Your task to perform on an android device: turn smart compose on in the gmail app Image 0: 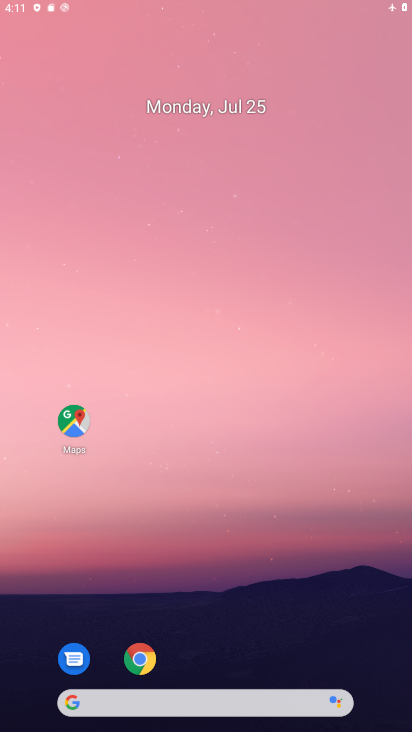
Step 0: click (249, 4)
Your task to perform on an android device: turn smart compose on in the gmail app Image 1: 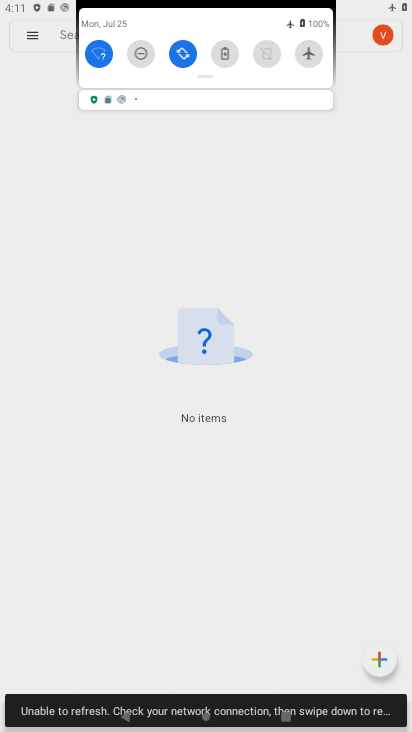
Step 1: press back button
Your task to perform on an android device: turn smart compose on in the gmail app Image 2: 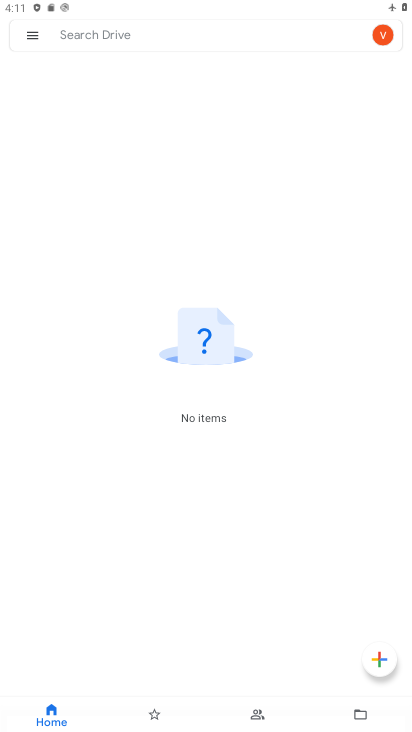
Step 2: press back button
Your task to perform on an android device: turn smart compose on in the gmail app Image 3: 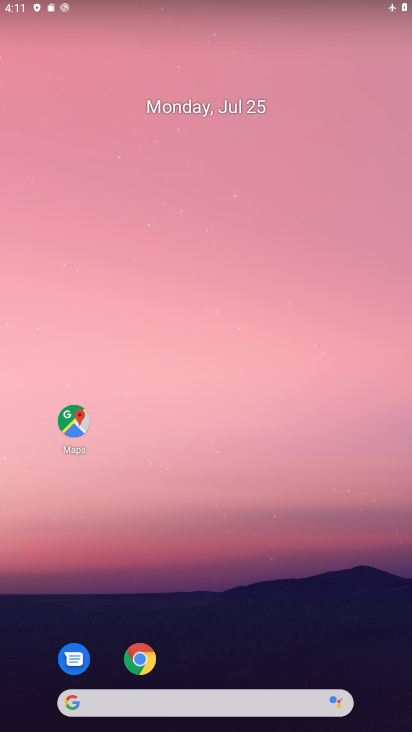
Step 3: press back button
Your task to perform on an android device: turn smart compose on in the gmail app Image 4: 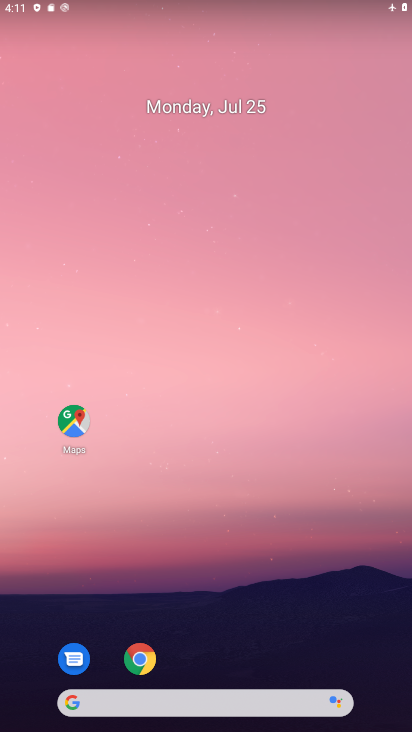
Step 4: press home button
Your task to perform on an android device: turn smart compose on in the gmail app Image 5: 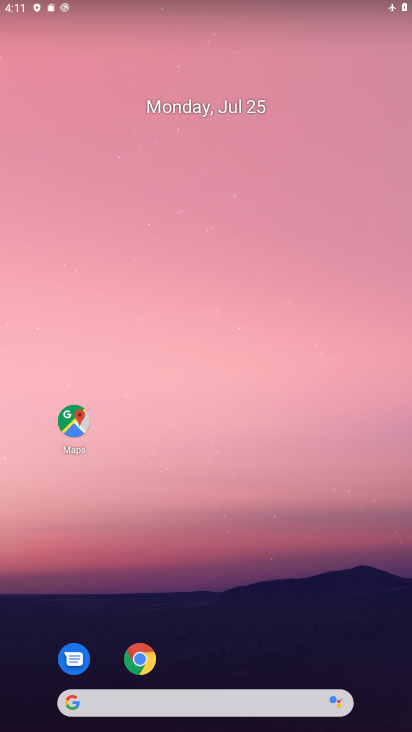
Step 5: drag from (228, 532) to (205, 122)
Your task to perform on an android device: turn smart compose on in the gmail app Image 6: 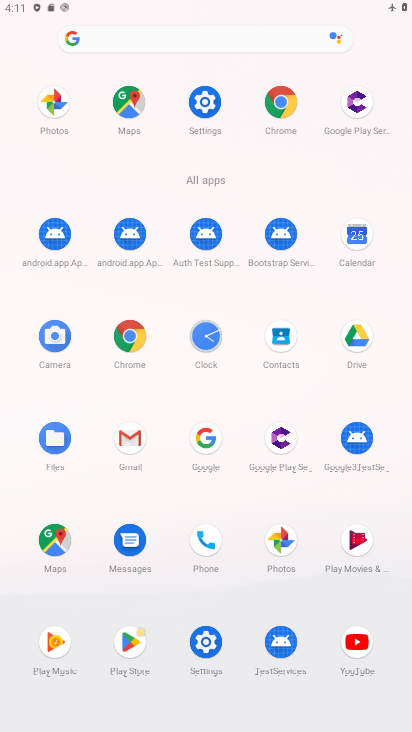
Step 6: click (139, 429)
Your task to perform on an android device: turn smart compose on in the gmail app Image 7: 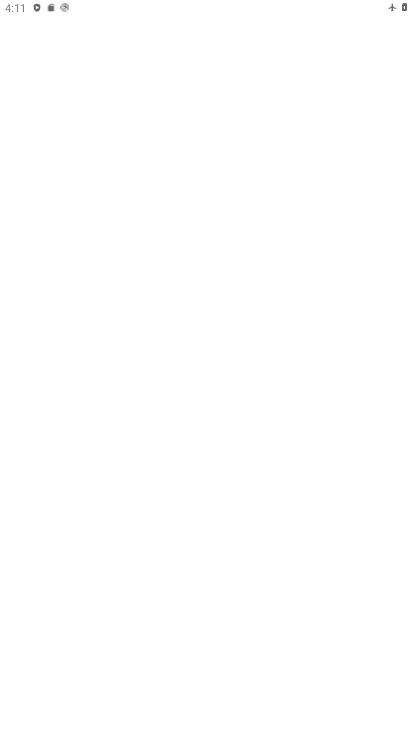
Step 7: click (150, 444)
Your task to perform on an android device: turn smart compose on in the gmail app Image 8: 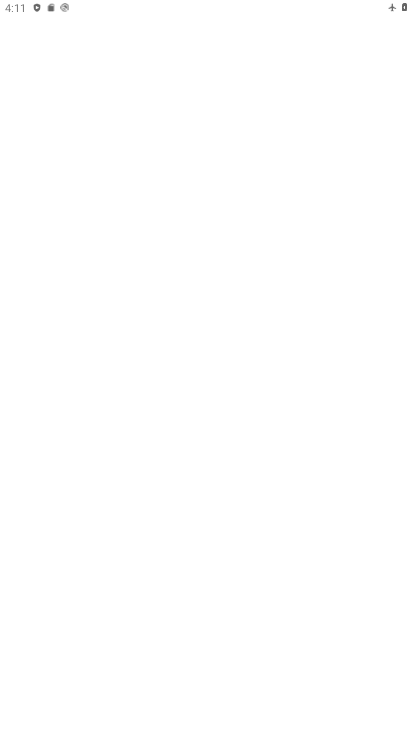
Step 8: click (150, 441)
Your task to perform on an android device: turn smart compose on in the gmail app Image 9: 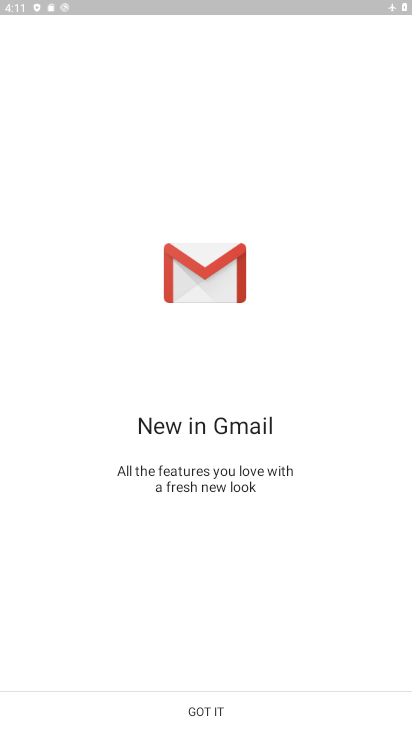
Step 9: click (211, 680)
Your task to perform on an android device: turn smart compose on in the gmail app Image 10: 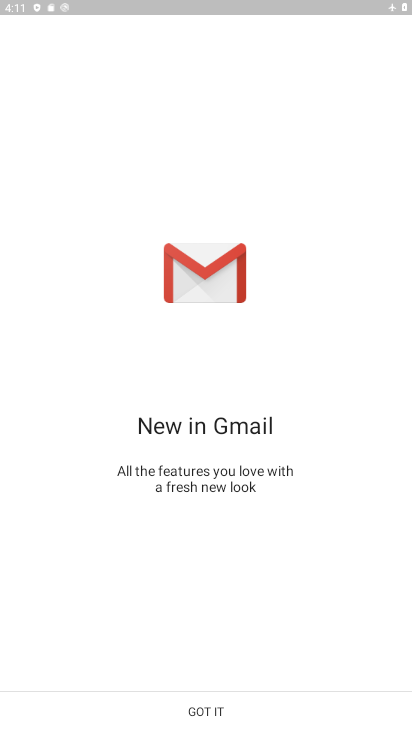
Step 10: click (220, 707)
Your task to perform on an android device: turn smart compose on in the gmail app Image 11: 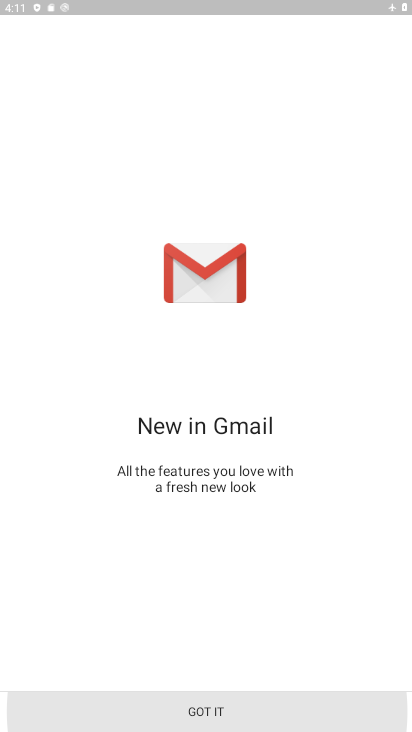
Step 11: click (225, 706)
Your task to perform on an android device: turn smart compose on in the gmail app Image 12: 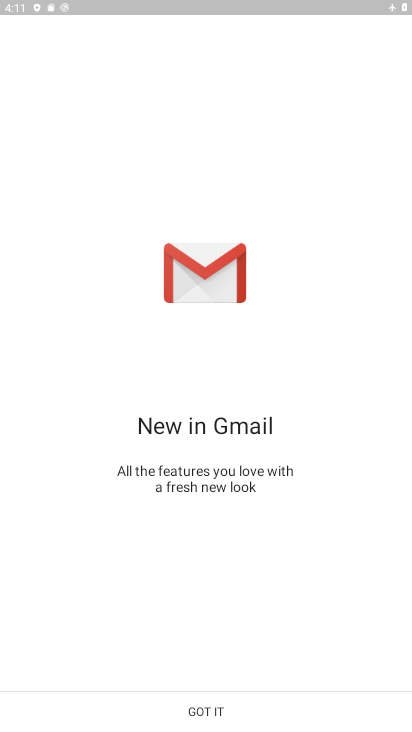
Step 12: click (226, 706)
Your task to perform on an android device: turn smart compose on in the gmail app Image 13: 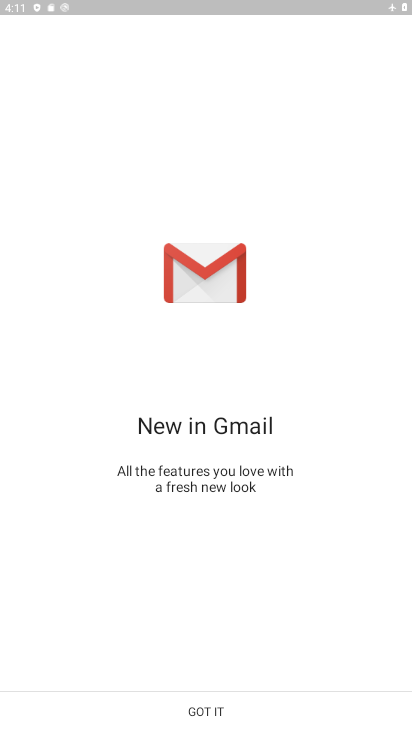
Step 13: click (226, 706)
Your task to perform on an android device: turn smart compose on in the gmail app Image 14: 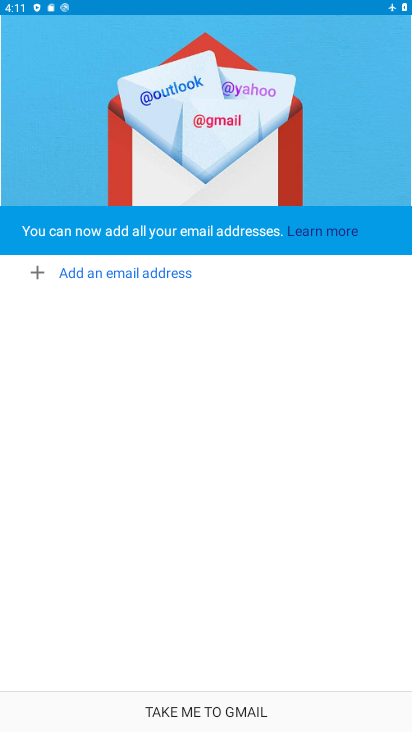
Step 14: click (243, 701)
Your task to perform on an android device: turn smart compose on in the gmail app Image 15: 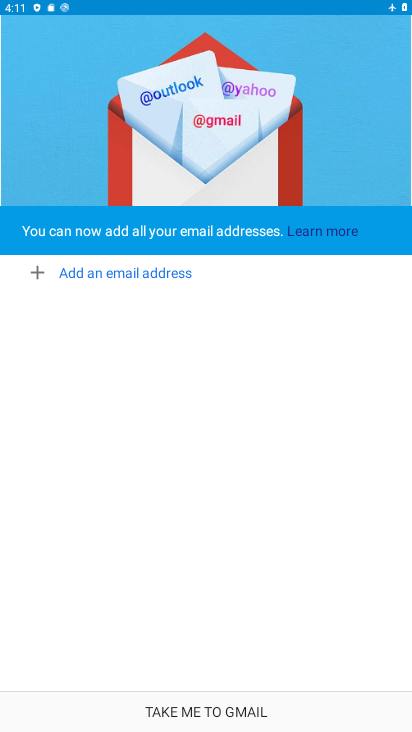
Step 15: click (240, 706)
Your task to perform on an android device: turn smart compose on in the gmail app Image 16: 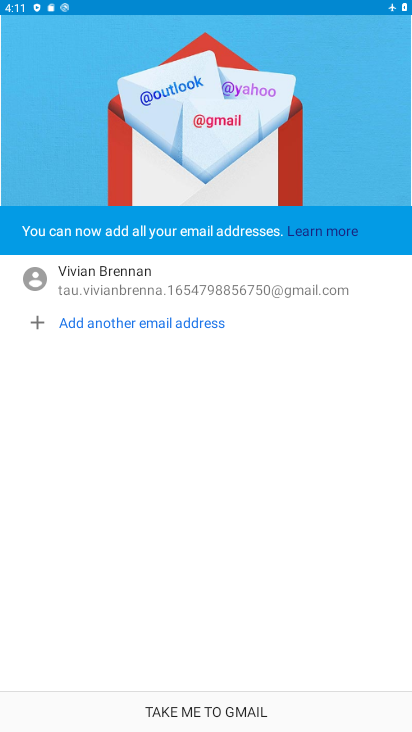
Step 16: click (254, 708)
Your task to perform on an android device: turn smart compose on in the gmail app Image 17: 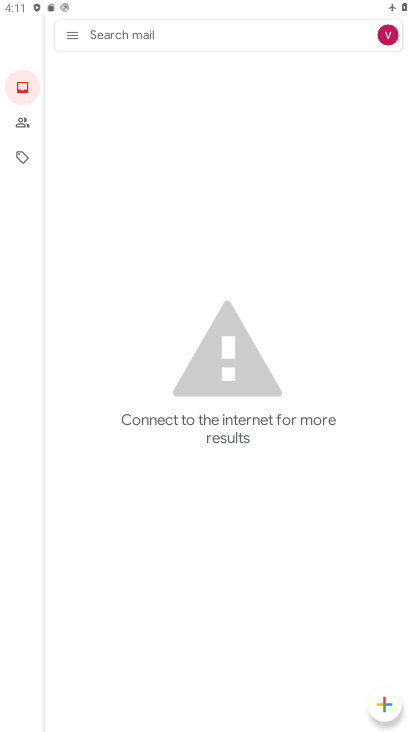
Step 17: task complete